Your task to perform on an android device: Open calendar and show me the third week of next month Image 0: 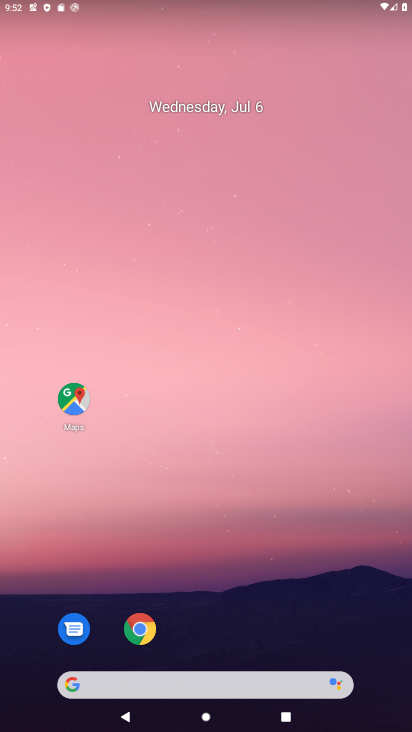
Step 0: drag from (271, 608) to (247, 150)
Your task to perform on an android device: Open calendar and show me the third week of next month Image 1: 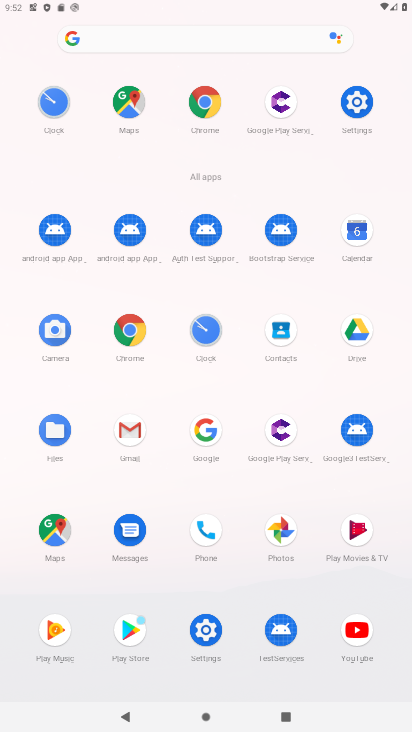
Step 1: click (362, 234)
Your task to perform on an android device: Open calendar and show me the third week of next month Image 2: 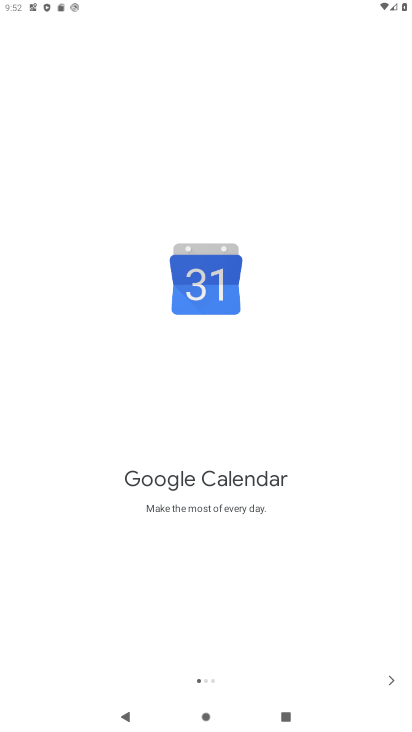
Step 2: click (383, 672)
Your task to perform on an android device: Open calendar and show me the third week of next month Image 3: 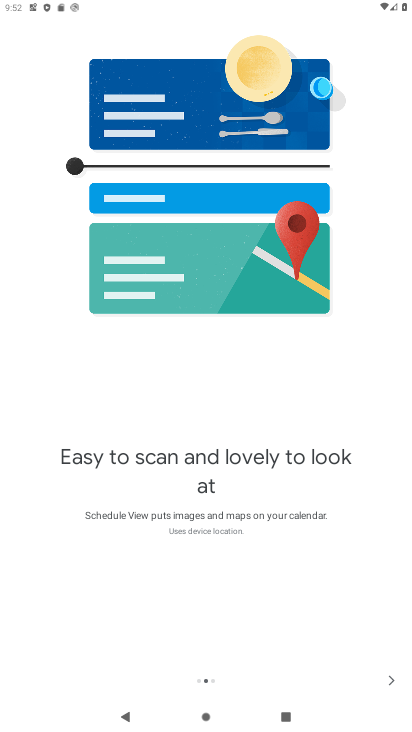
Step 3: click (385, 678)
Your task to perform on an android device: Open calendar and show me the third week of next month Image 4: 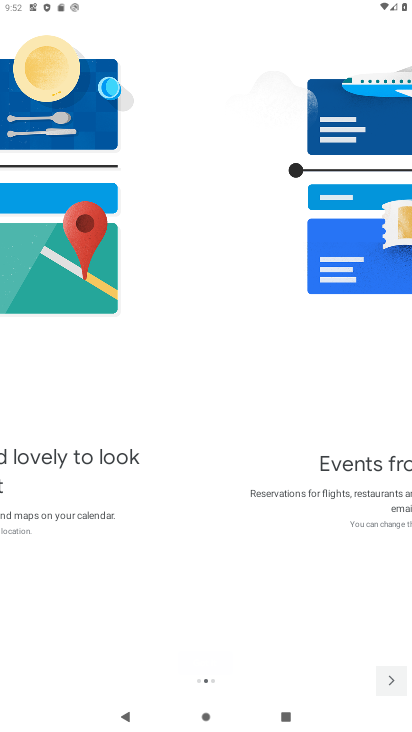
Step 4: click (385, 678)
Your task to perform on an android device: Open calendar and show me the third week of next month Image 5: 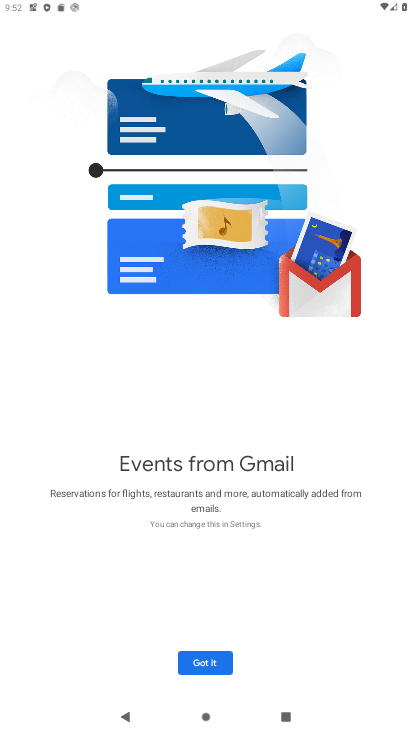
Step 5: click (209, 660)
Your task to perform on an android device: Open calendar and show me the third week of next month Image 6: 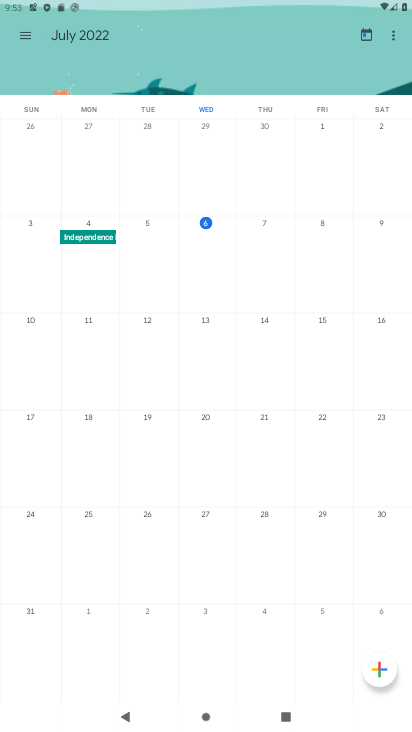
Step 6: drag from (359, 573) to (4, 495)
Your task to perform on an android device: Open calendar and show me the third week of next month Image 7: 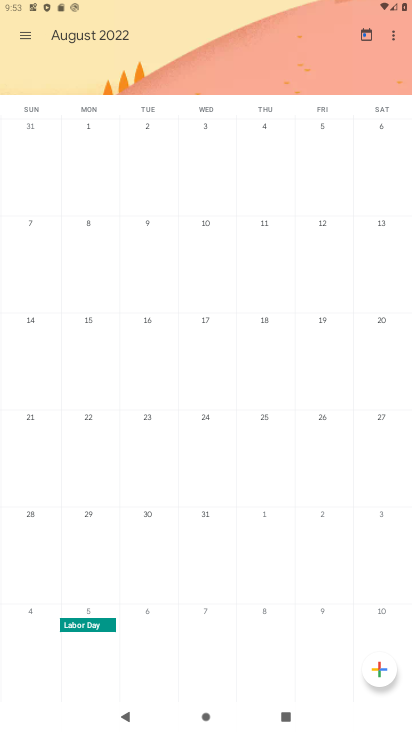
Step 7: click (211, 323)
Your task to perform on an android device: Open calendar and show me the third week of next month Image 8: 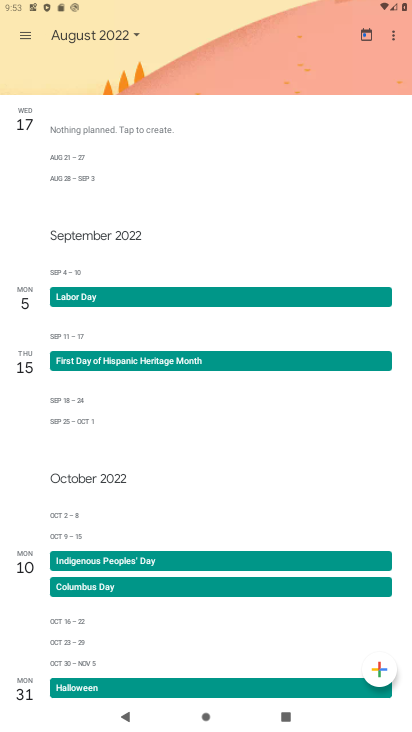
Step 8: task complete